Your task to perform on an android device: turn on translation in the chrome app Image 0: 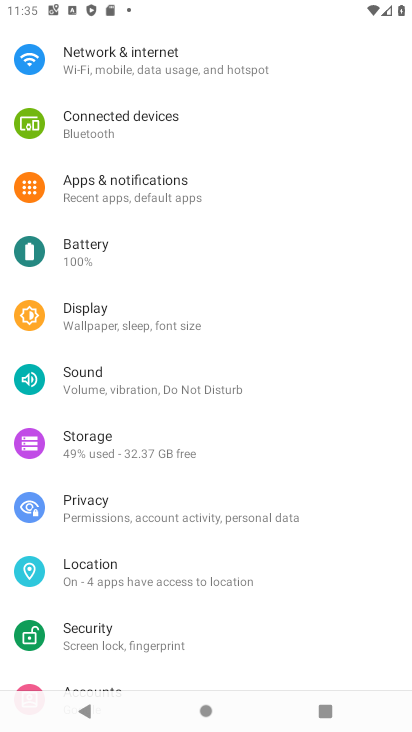
Step 0: press home button
Your task to perform on an android device: turn on translation in the chrome app Image 1: 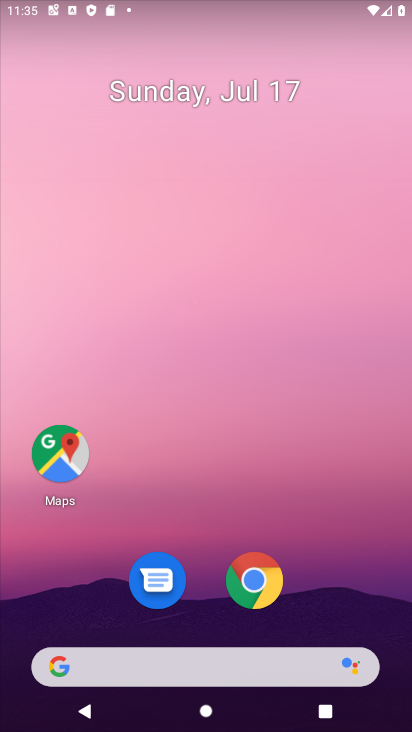
Step 1: drag from (201, 668) to (241, 186)
Your task to perform on an android device: turn on translation in the chrome app Image 2: 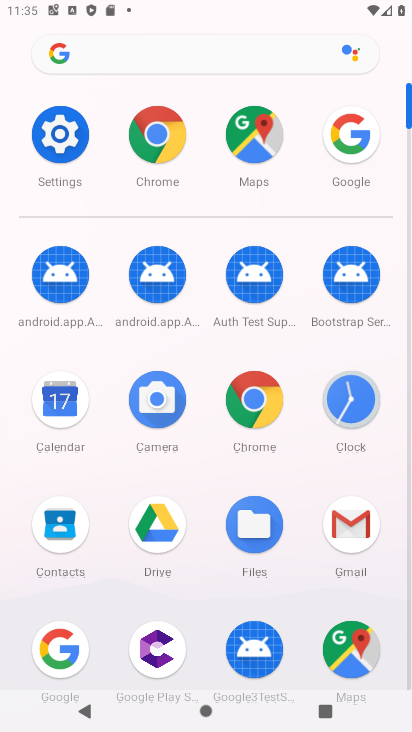
Step 2: click (241, 433)
Your task to perform on an android device: turn on translation in the chrome app Image 3: 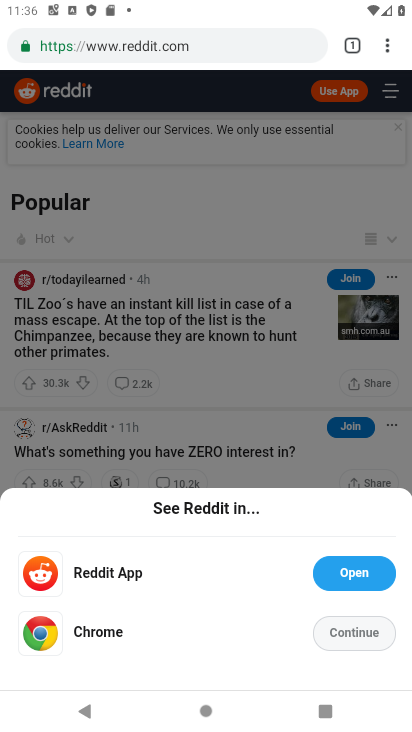
Step 3: click (389, 45)
Your task to perform on an android device: turn on translation in the chrome app Image 4: 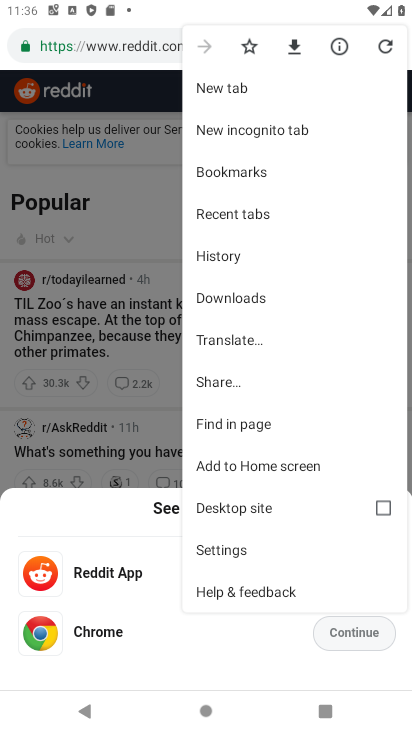
Step 4: click (253, 340)
Your task to perform on an android device: turn on translation in the chrome app Image 5: 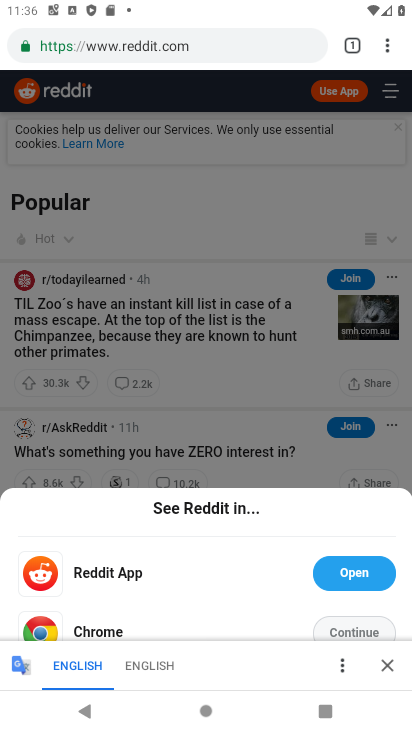
Step 5: click (341, 677)
Your task to perform on an android device: turn on translation in the chrome app Image 6: 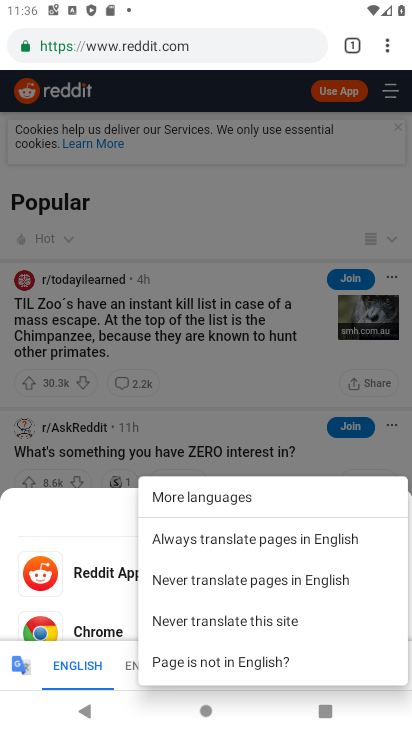
Step 6: click (251, 537)
Your task to perform on an android device: turn on translation in the chrome app Image 7: 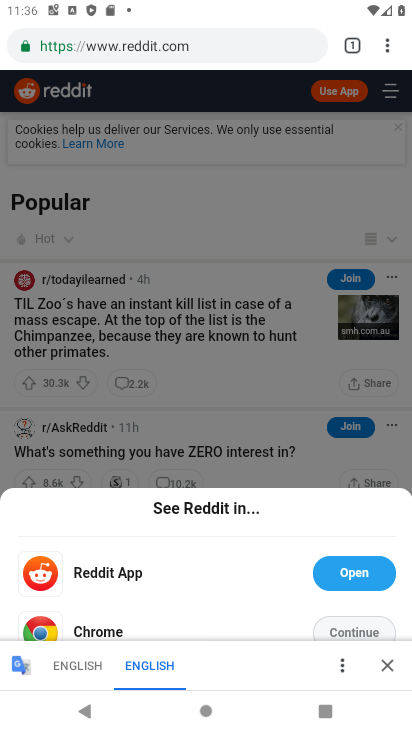
Step 7: task complete